Your task to perform on an android device: change alarm snooze length Image 0: 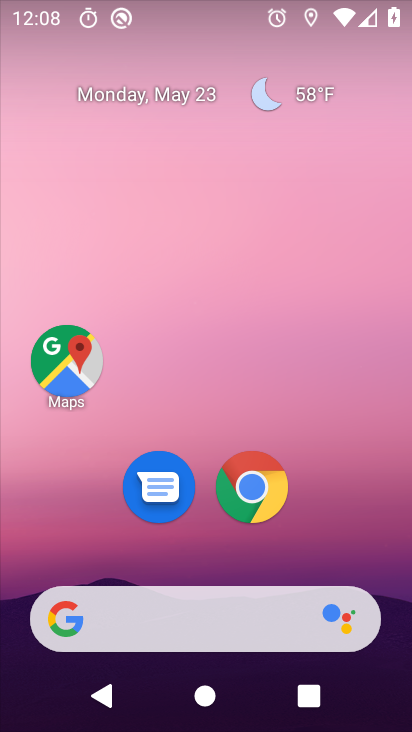
Step 0: drag from (298, 548) to (320, 258)
Your task to perform on an android device: change alarm snooze length Image 1: 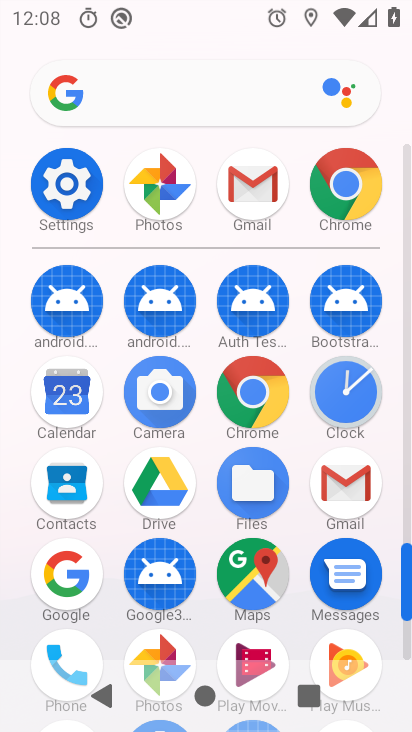
Step 1: click (347, 395)
Your task to perform on an android device: change alarm snooze length Image 2: 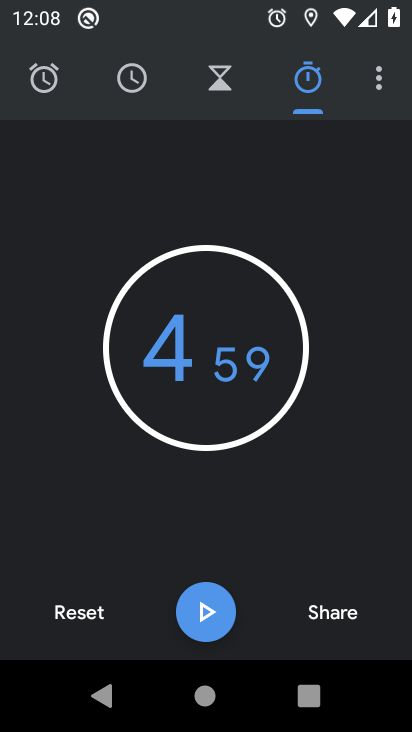
Step 2: drag from (390, 79) to (224, 146)
Your task to perform on an android device: change alarm snooze length Image 3: 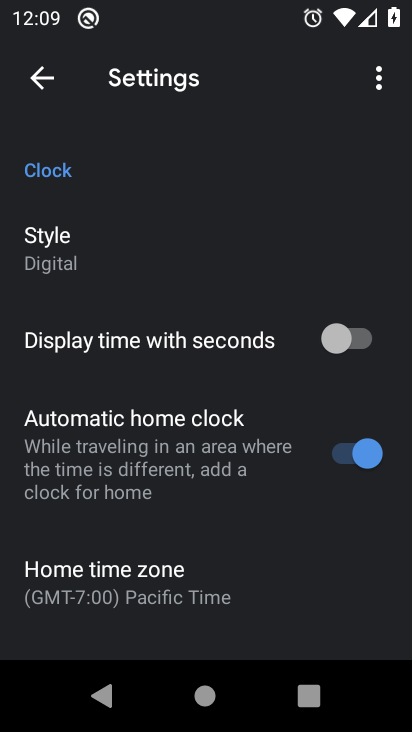
Step 3: drag from (248, 553) to (280, 111)
Your task to perform on an android device: change alarm snooze length Image 4: 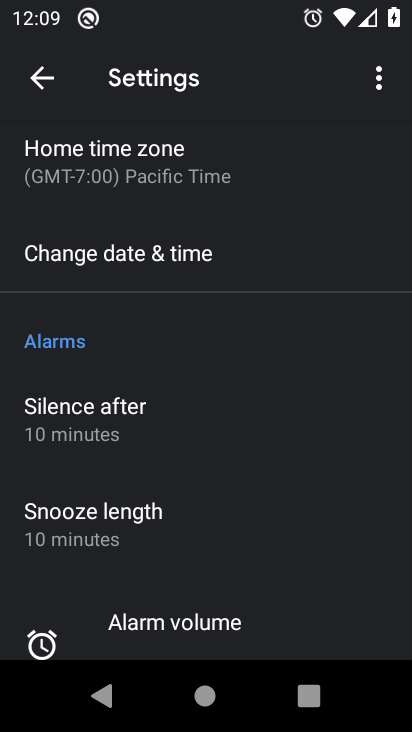
Step 4: click (191, 516)
Your task to perform on an android device: change alarm snooze length Image 5: 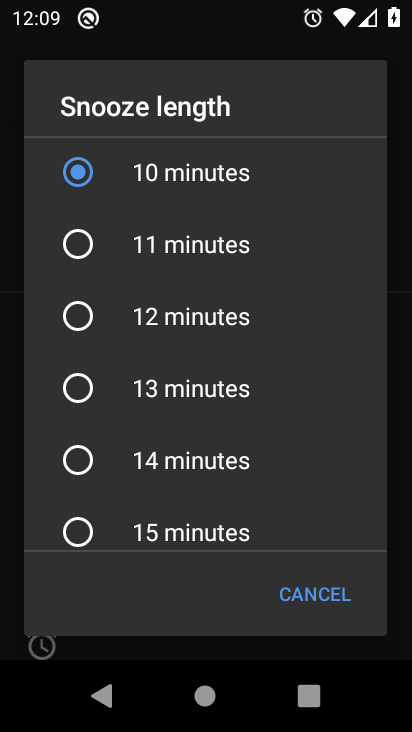
Step 5: click (76, 467)
Your task to perform on an android device: change alarm snooze length Image 6: 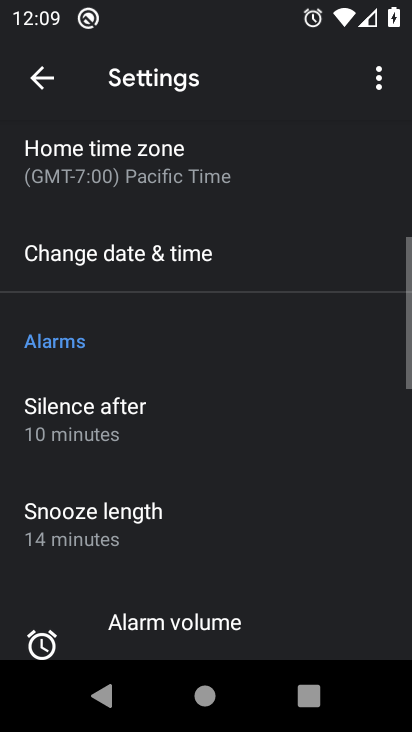
Step 6: task complete